Your task to perform on an android device: Clear the shopping cart on newegg. Search for duracell triple a on newegg, select the first entry, and add it to the cart. Image 0: 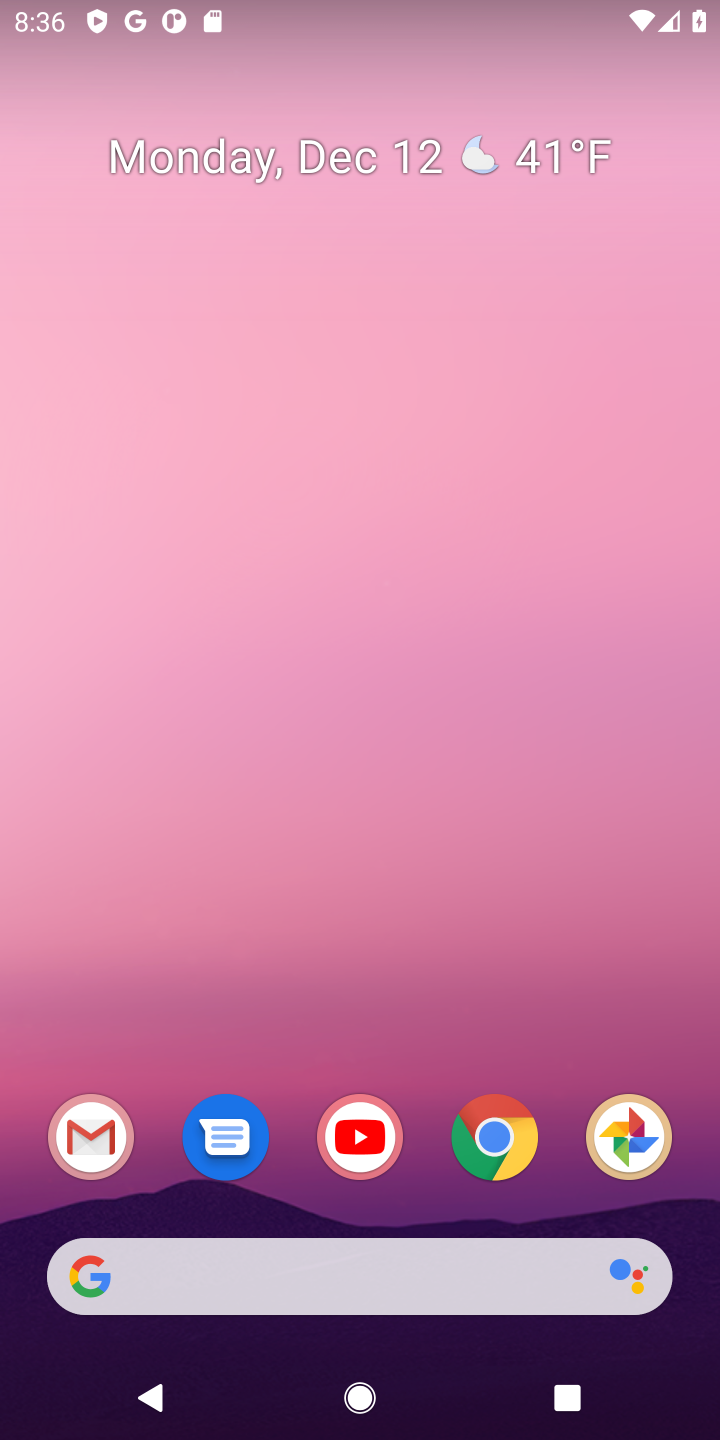
Step 0: click (504, 1131)
Your task to perform on an android device: Clear the shopping cart on newegg. Search for duracell triple a on newegg, select the first entry, and add it to the cart. Image 1: 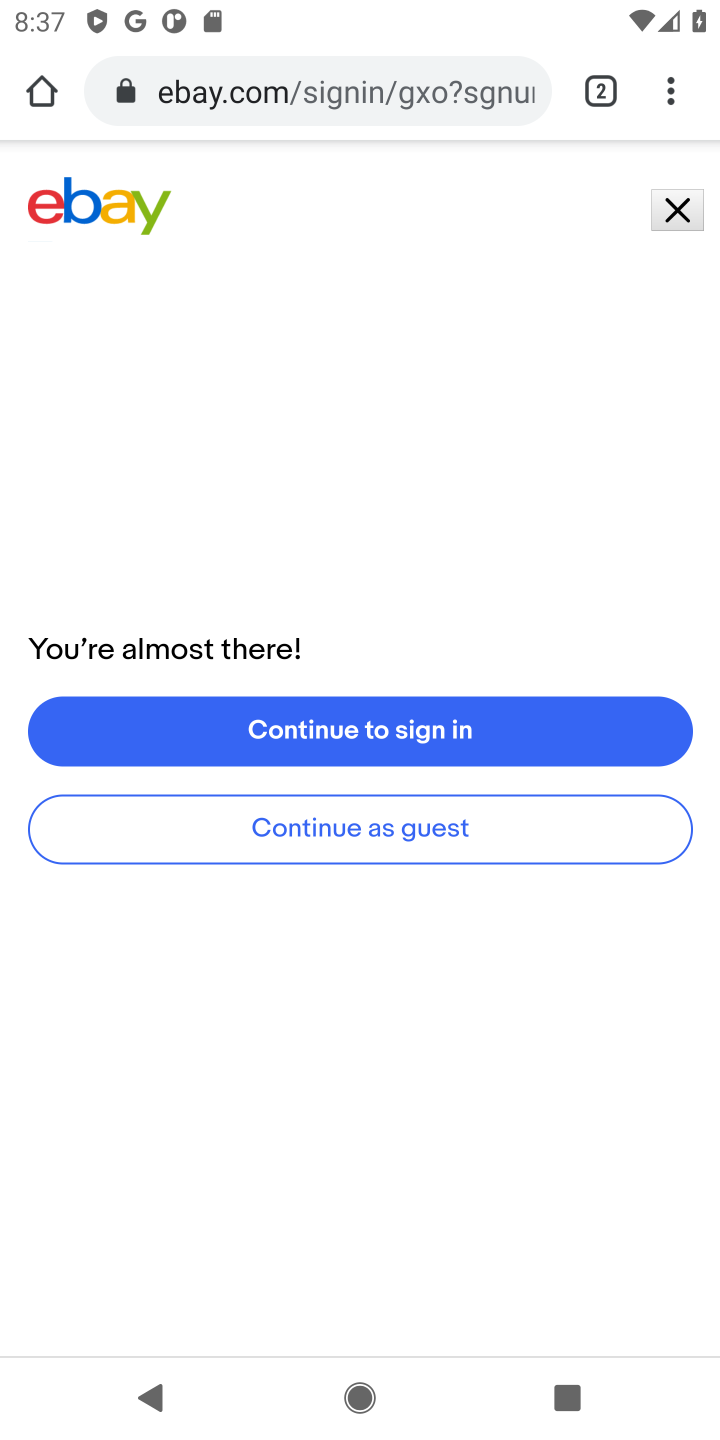
Step 1: click (450, 83)
Your task to perform on an android device: Clear the shopping cart on newegg. Search for duracell triple a on newegg, select the first entry, and add it to the cart. Image 2: 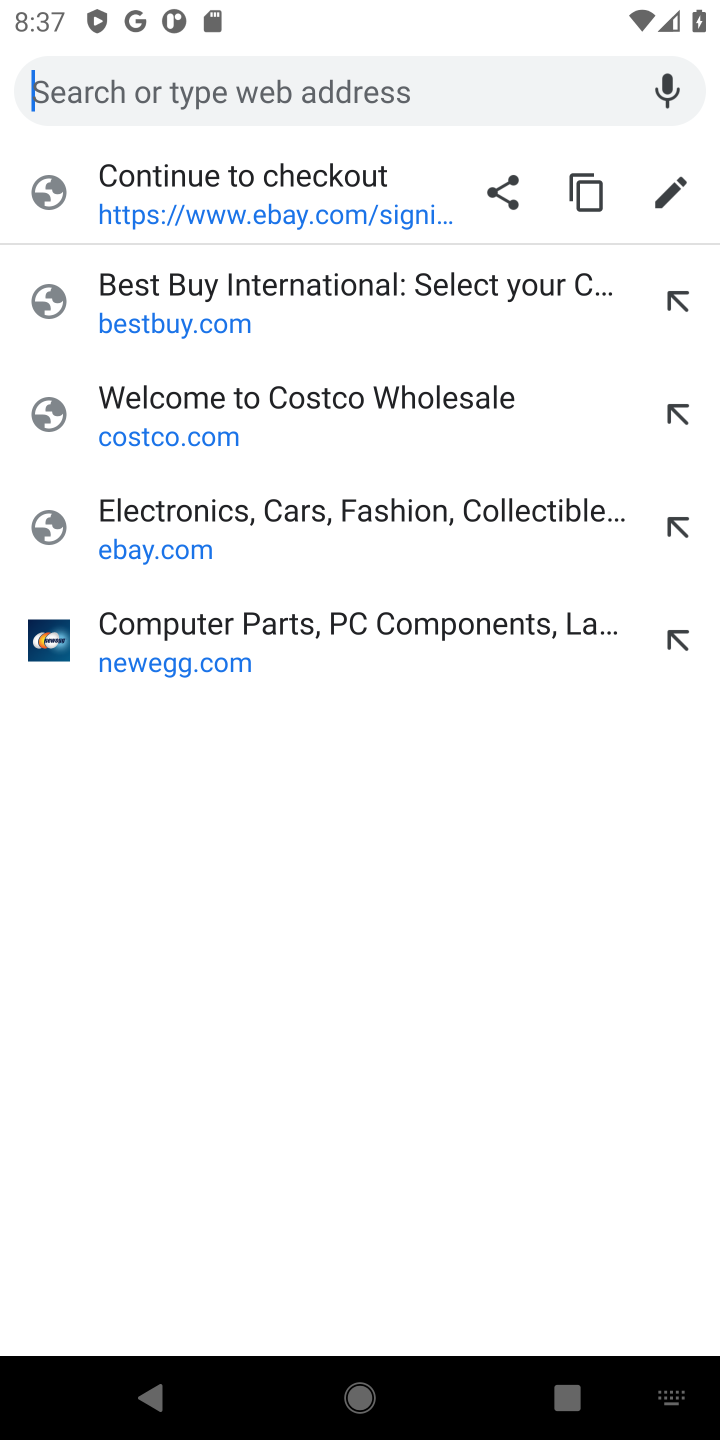
Step 2: click (446, 635)
Your task to perform on an android device: Clear the shopping cart on newegg. Search for duracell triple a on newegg, select the first entry, and add it to the cart. Image 3: 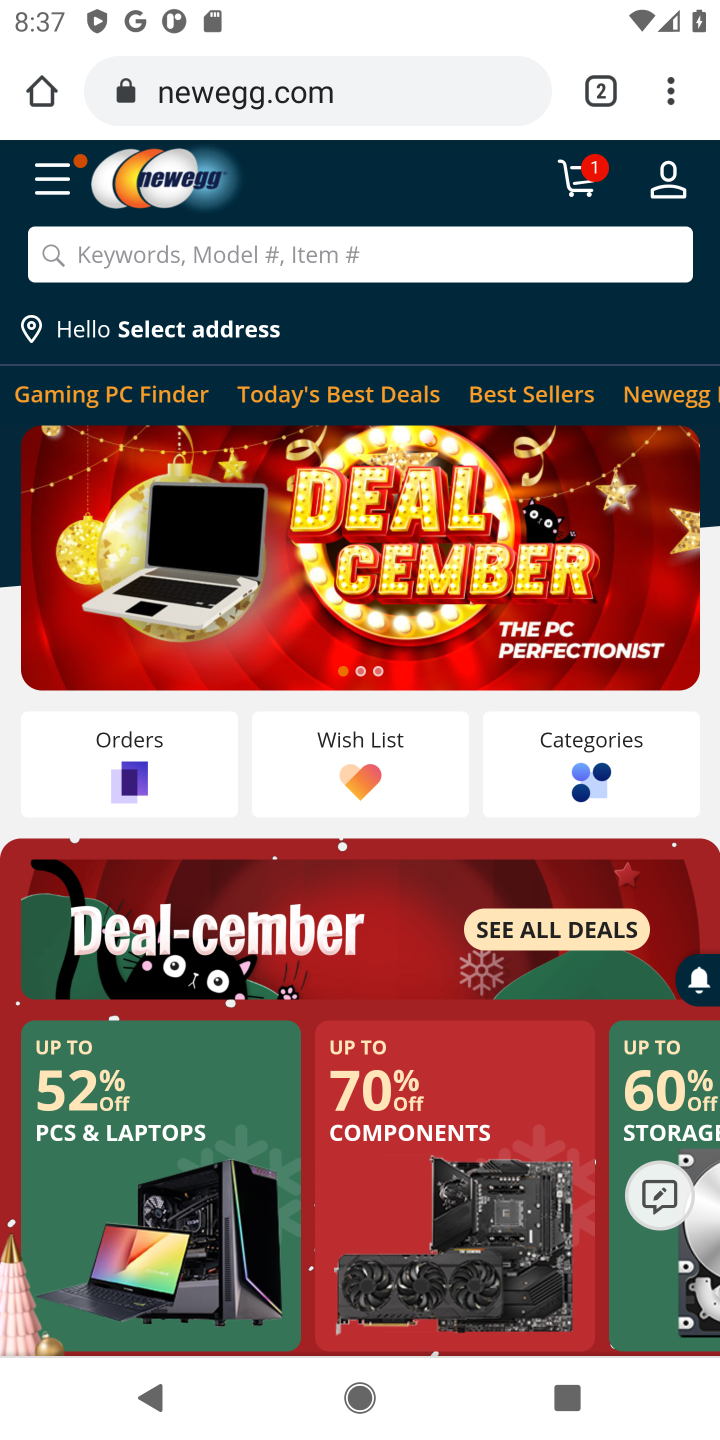
Step 3: click (453, 250)
Your task to perform on an android device: Clear the shopping cart on newegg. Search for duracell triple a on newegg, select the first entry, and add it to the cart. Image 4: 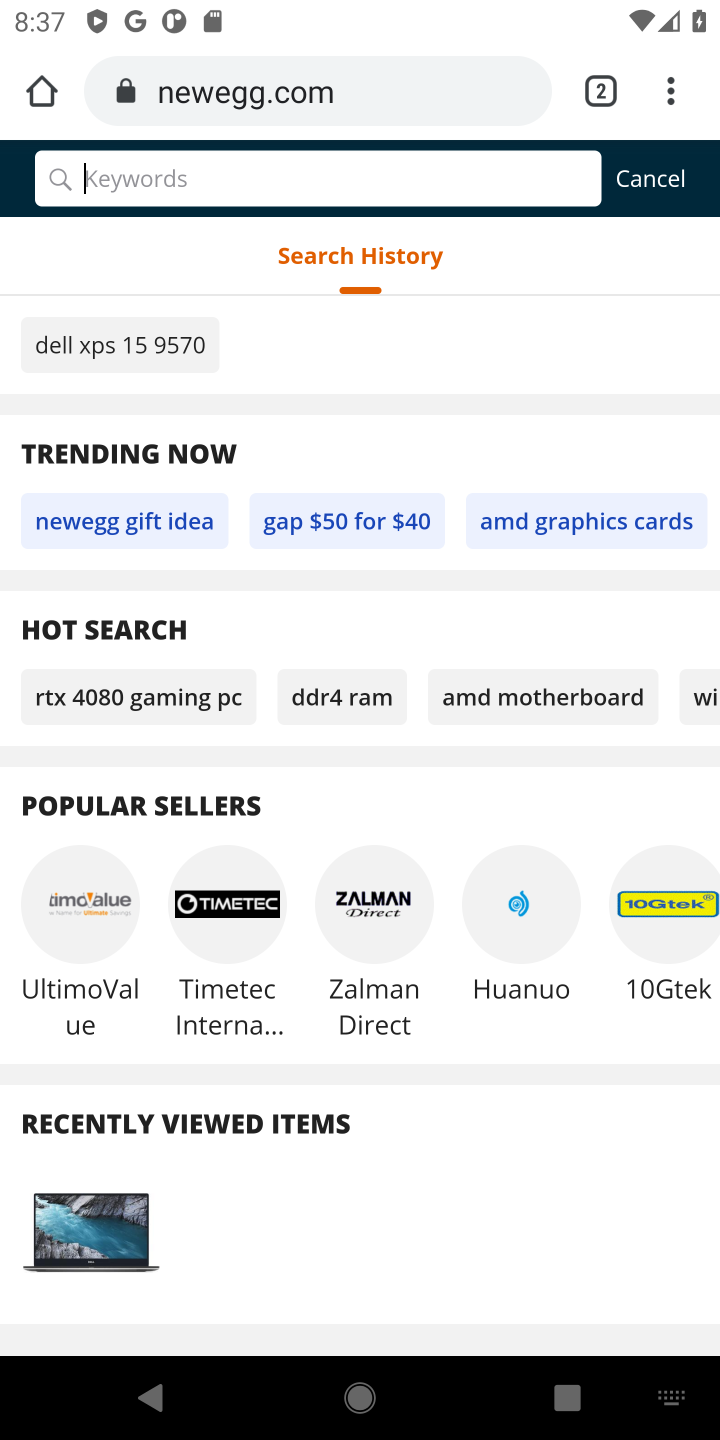
Step 4: click (241, 96)
Your task to perform on an android device: Clear the shopping cart on newegg. Search for duracell triple a on newegg, select the first entry, and add it to the cart. Image 5: 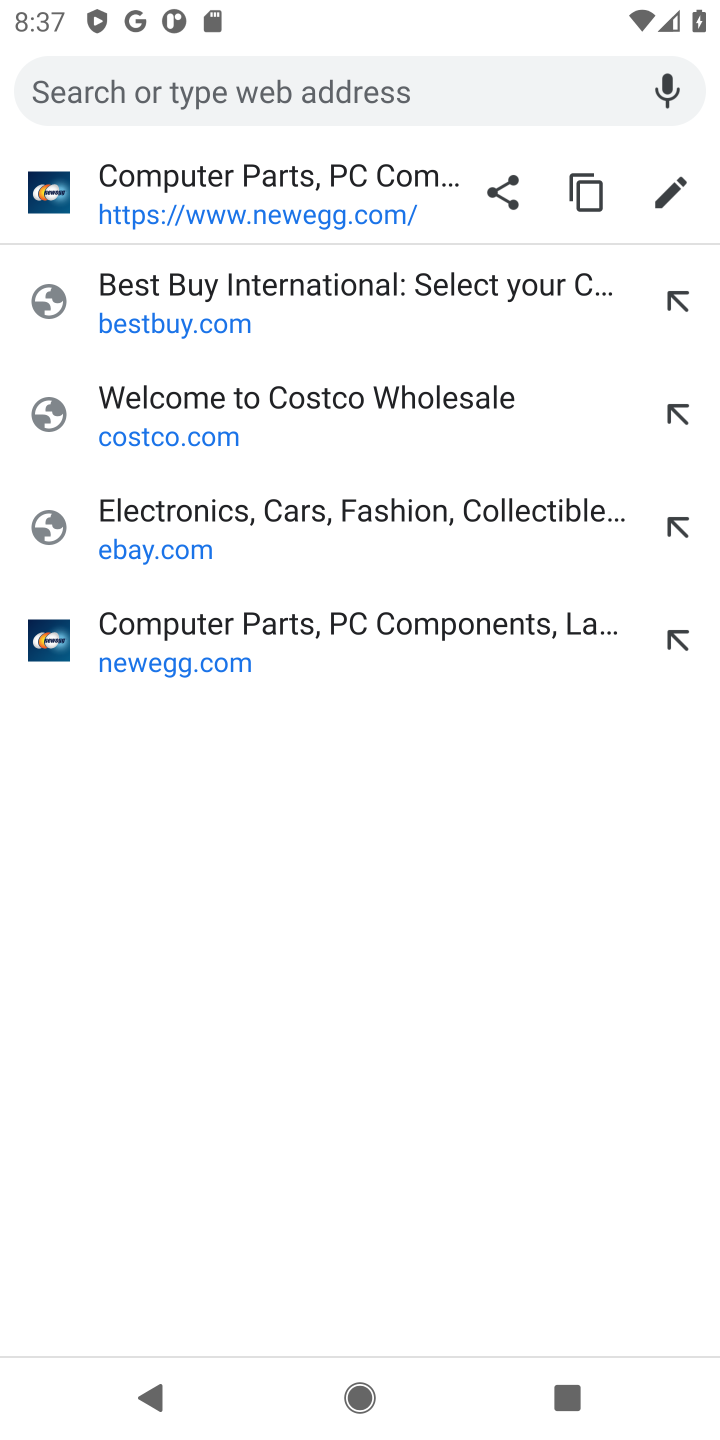
Step 5: click (104, 209)
Your task to perform on an android device: Clear the shopping cart on newegg. Search for duracell triple a on newegg, select the first entry, and add it to the cart. Image 6: 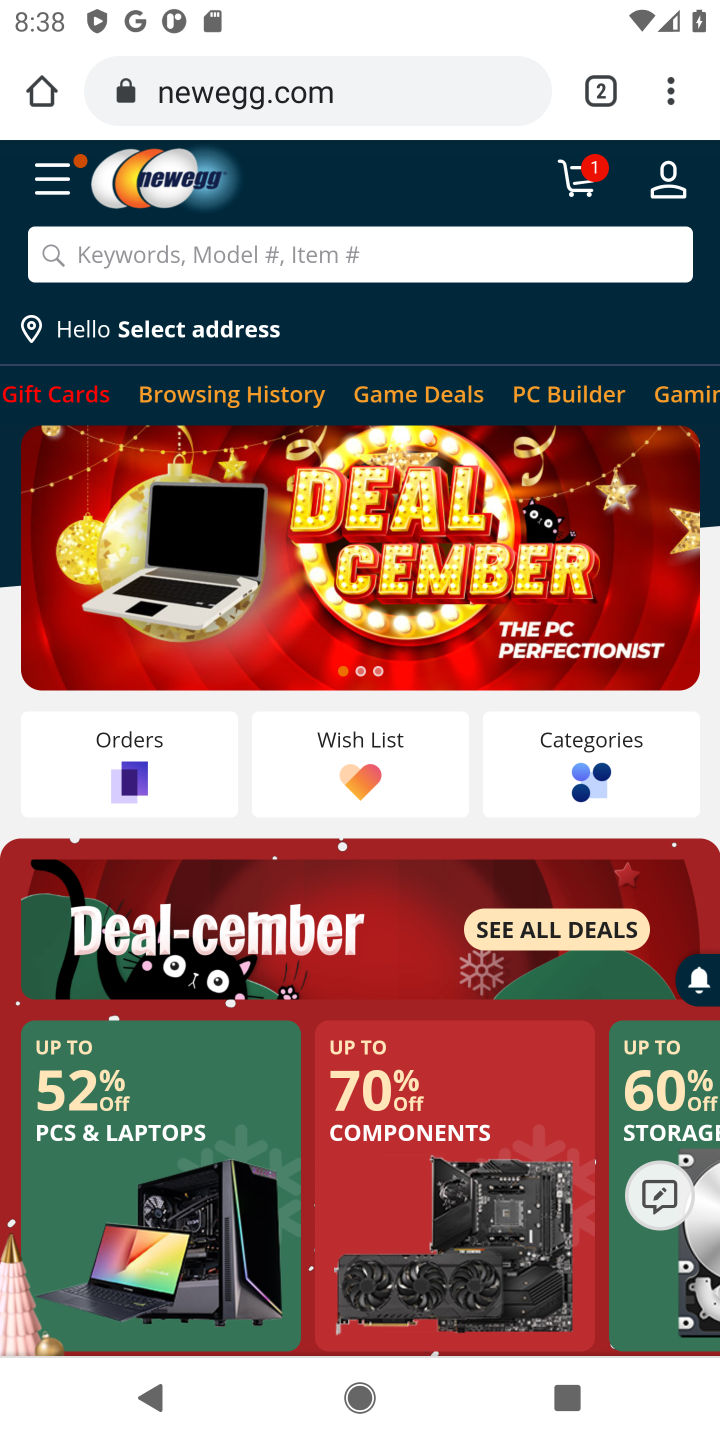
Step 6: click (586, 168)
Your task to perform on an android device: Clear the shopping cart on newegg. Search for duracell triple a on newegg, select the first entry, and add it to the cart. Image 7: 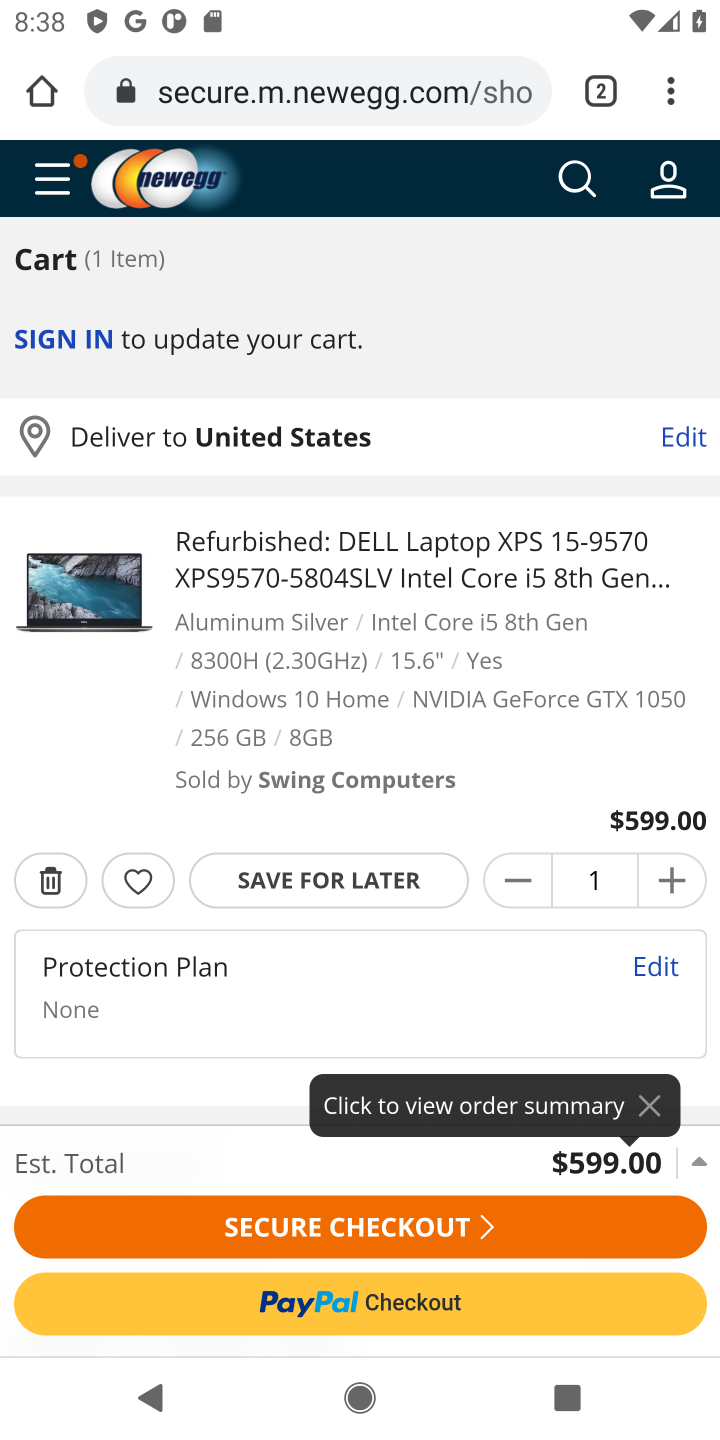
Step 7: click (62, 883)
Your task to perform on an android device: Clear the shopping cart on newegg. Search for duracell triple a on newegg, select the first entry, and add it to the cart. Image 8: 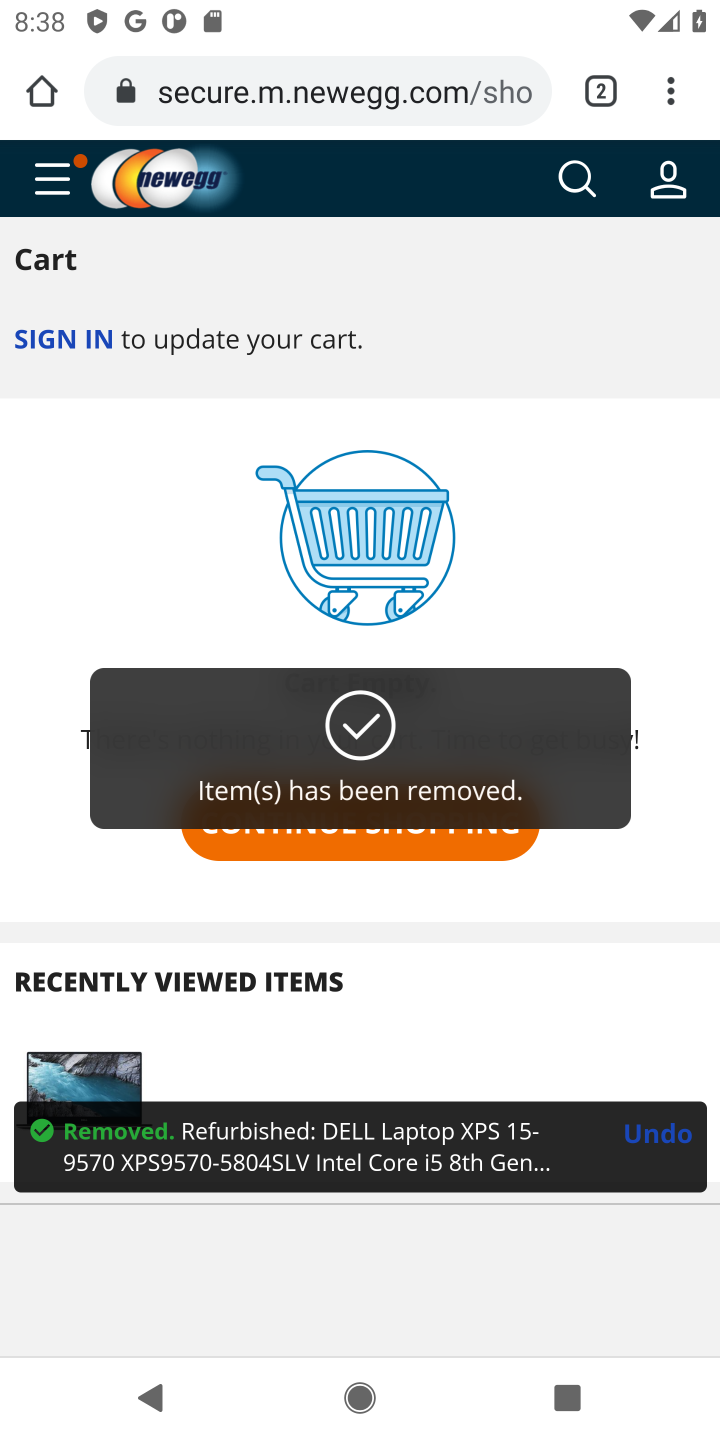
Step 8: click (567, 172)
Your task to perform on an android device: Clear the shopping cart on newegg. Search for duracell triple a on newegg, select the first entry, and add it to the cart. Image 9: 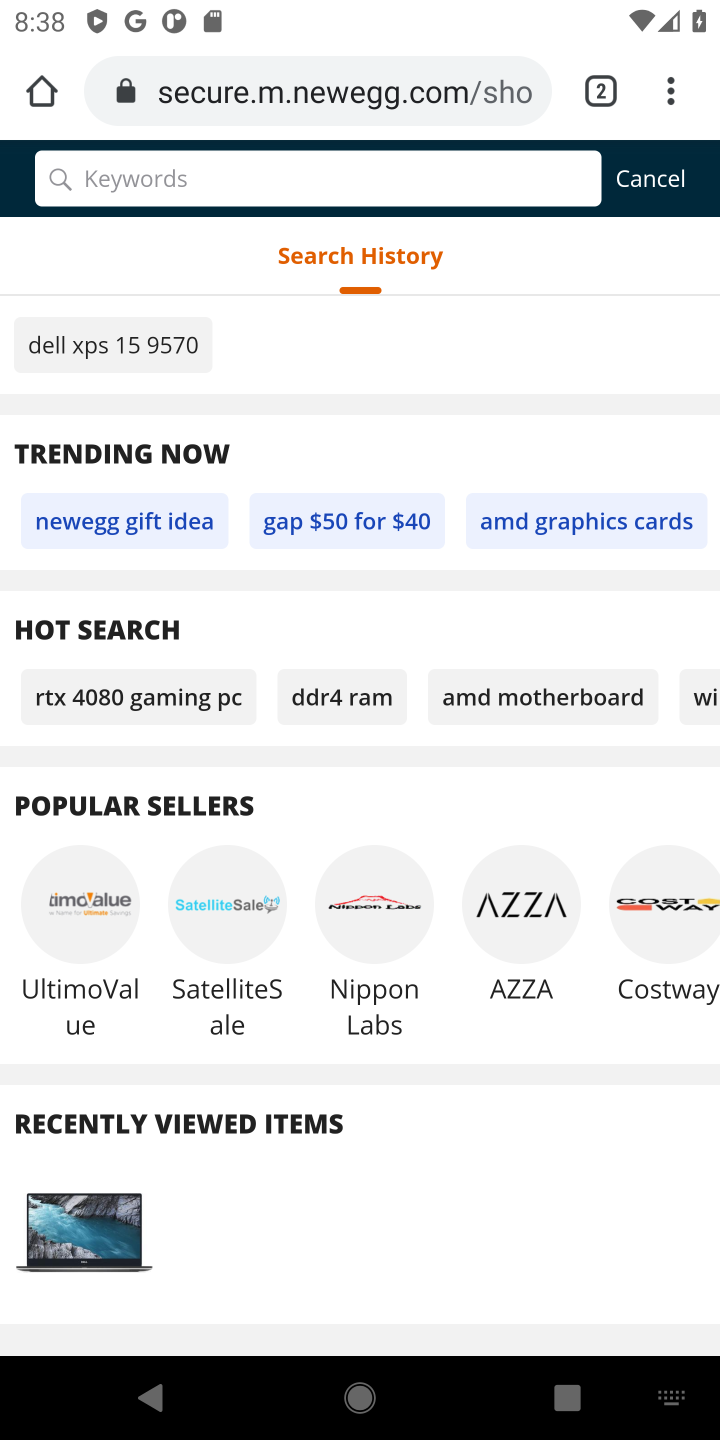
Step 9: type "duracell triple a"
Your task to perform on an android device: Clear the shopping cart on newegg. Search for duracell triple a on newegg, select the first entry, and add it to the cart. Image 10: 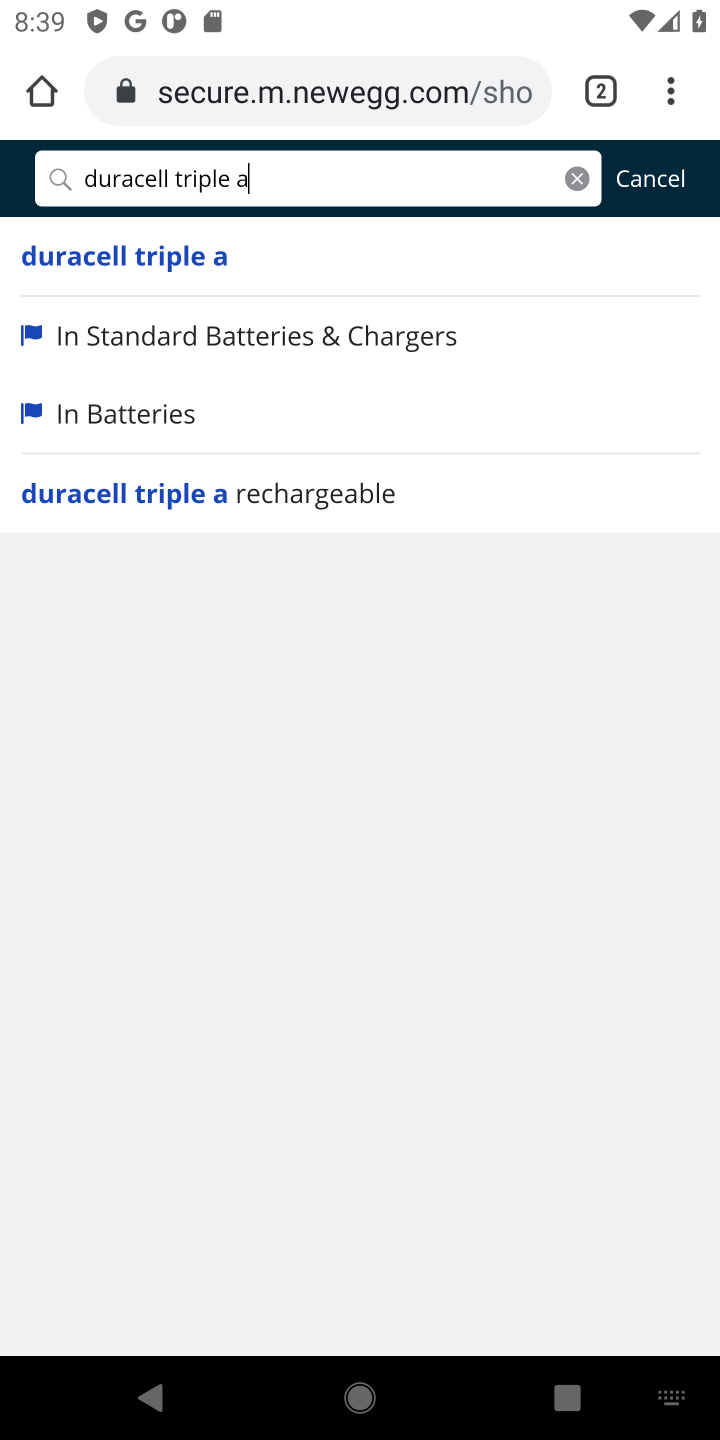
Step 10: click (232, 249)
Your task to perform on an android device: Clear the shopping cart on newegg. Search for duracell triple a on newegg, select the first entry, and add it to the cart. Image 11: 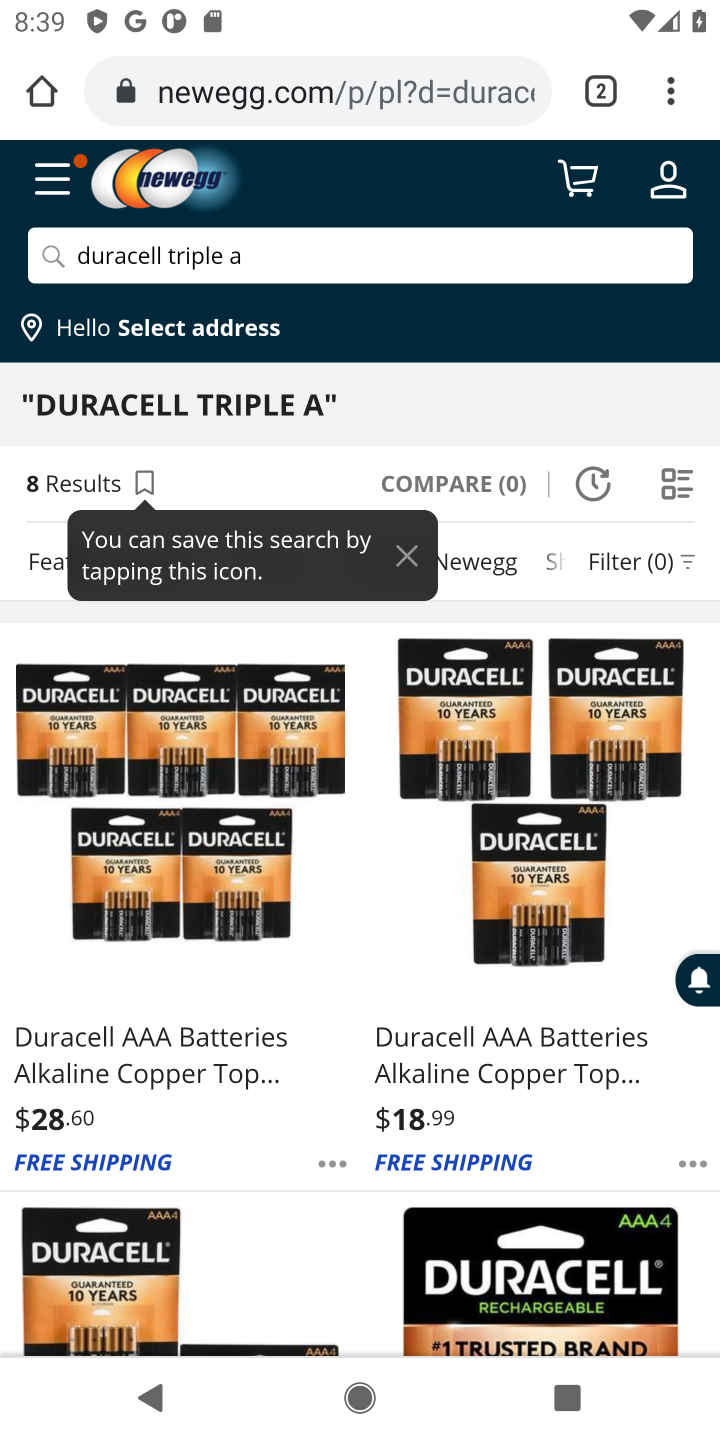
Step 11: click (195, 985)
Your task to perform on an android device: Clear the shopping cart on newegg. Search for duracell triple a on newegg, select the first entry, and add it to the cart. Image 12: 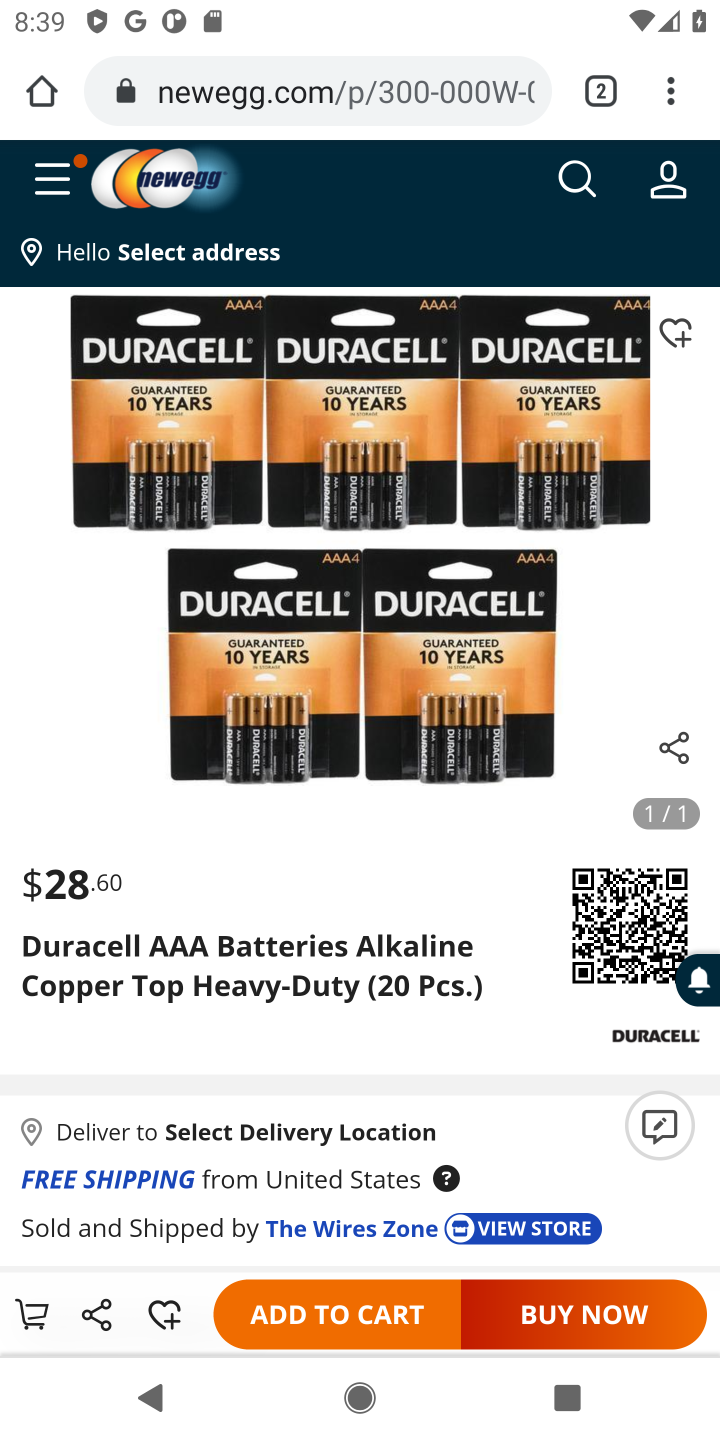
Step 12: click (333, 1318)
Your task to perform on an android device: Clear the shopping cart on newegg. Search for duracell triple a on newegg, select the first entry, and add it to the cart. Image 13: 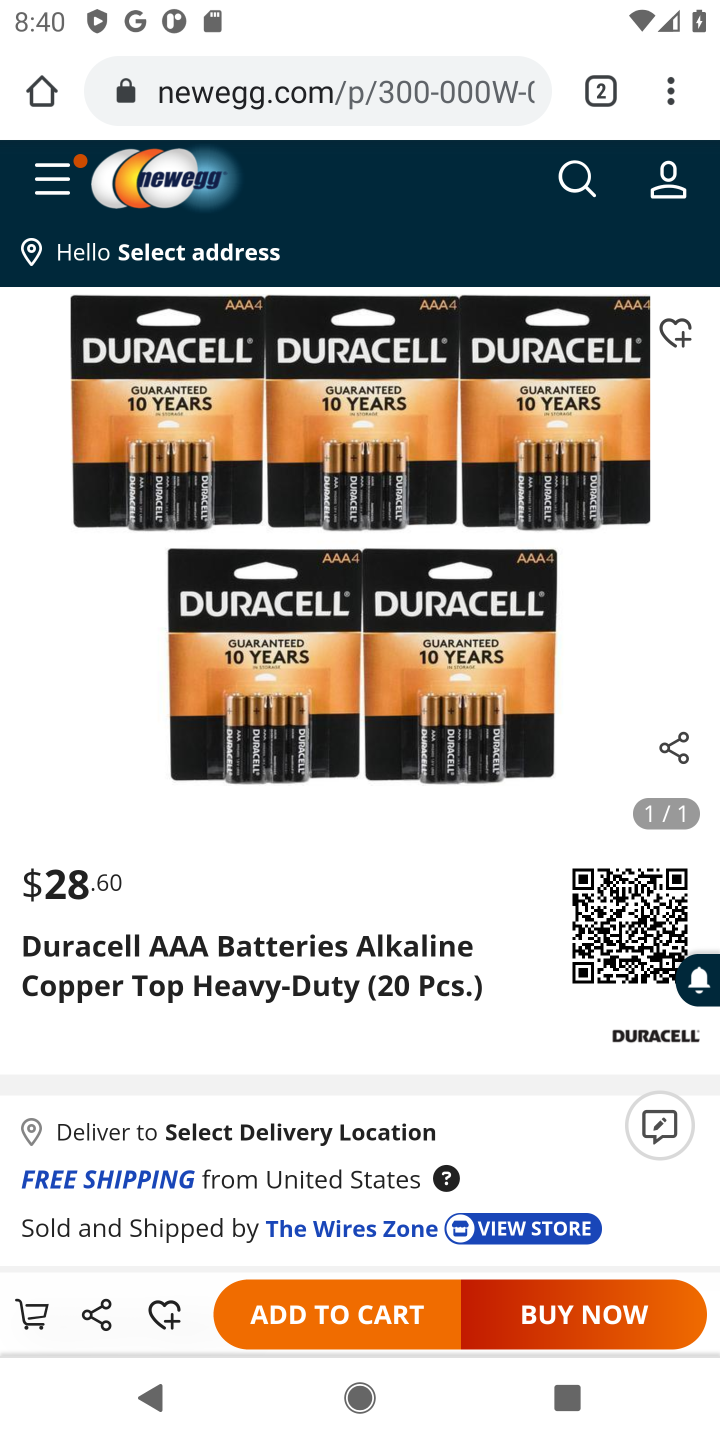
Step 13: task complete